Your task to perform on an android device: Open calendar and show me the second week of next month Image 0: 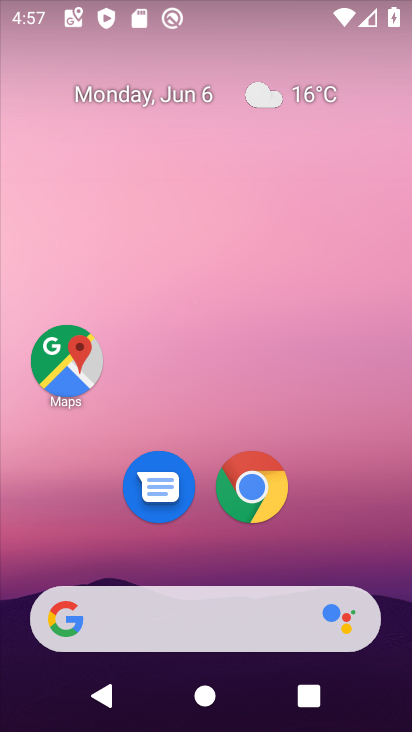
Step 0: drag from (327, 505) to (346, 44)
Your task to perform on an android device: Open calendar and show me the second week of next month Image 1: 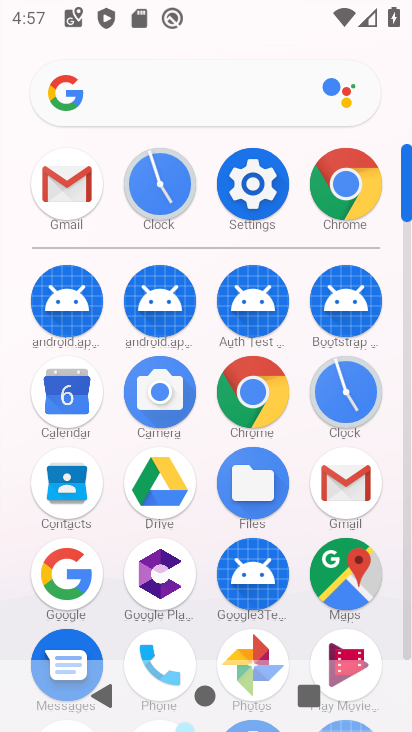
Step 1: click (58, 390)
Your task to perform on an android device: Open calendar and show me the second week of next month Image 2: 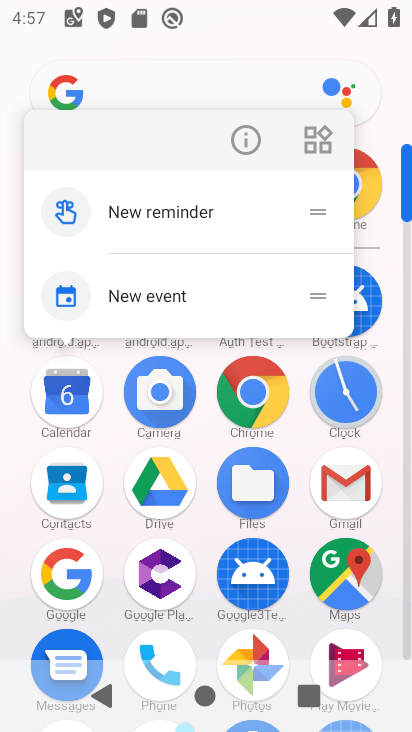
Step 2: click (58, 392)
Your task to perform on an android device: Open calendar and show me the second week of next month Image 3: 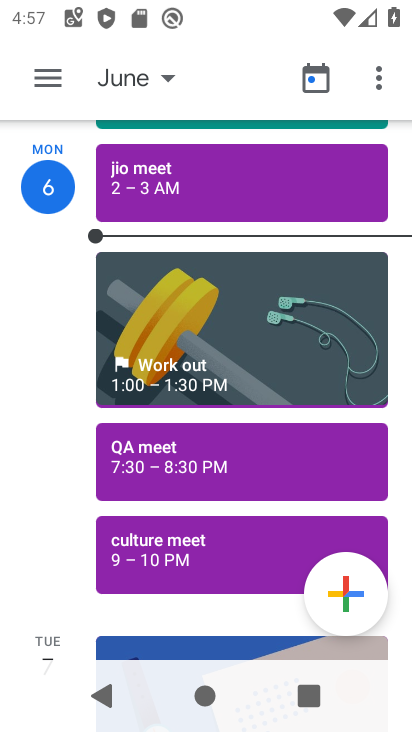
Step 3: click (55, 77)
Your task to perform on an android device: Open calendar and show me the second week of next month Image 4: 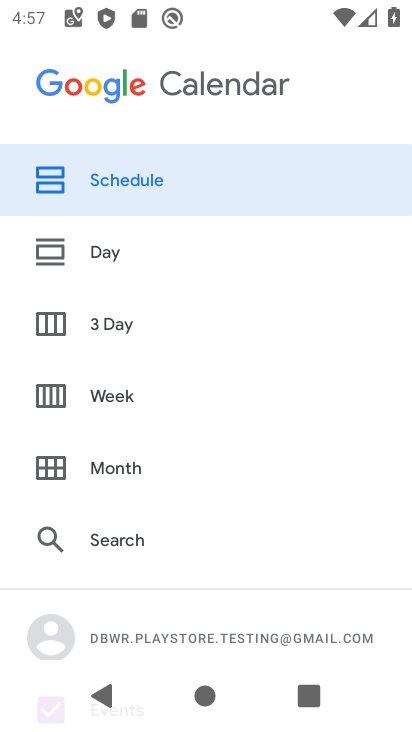
Step 4: click (45, 467)
Your task to perform on an android device: Open calendar and show me the second week of next month Image 5: 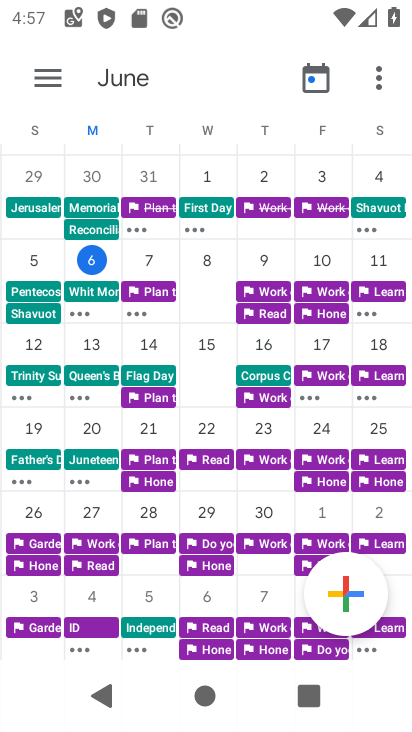
Step 5: drag from (373, 423) to (28, 477)
Your task to perform on an android device: Open calendar and show me the second week of next month Image 6: 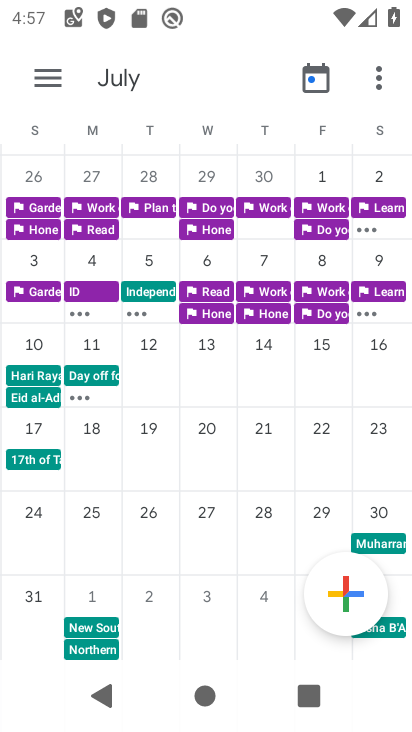
Step 6: click (24, 345)
Your task to perform on an android device: Open calendar and show me the second week of next month Image 7: 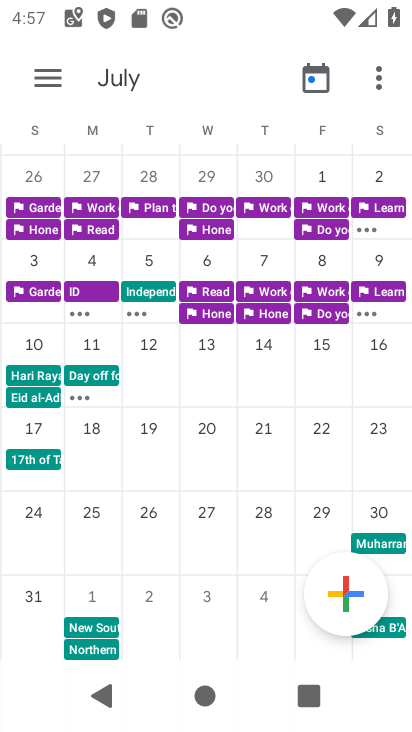
Step 7: click (32, 340)
Your task to perform on an android device: Open calendar and show me the second week of next month Image 8: 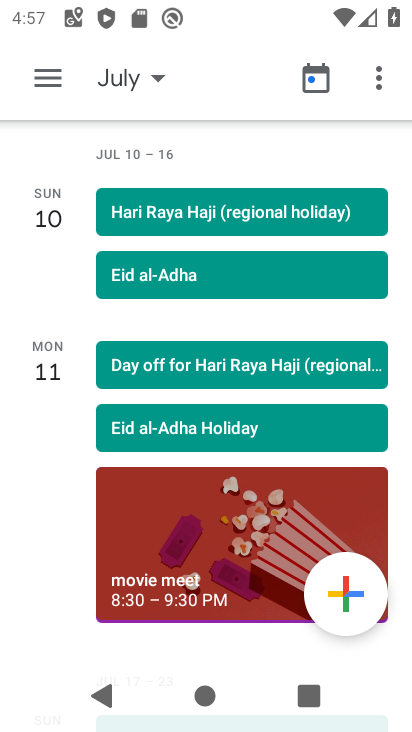
Step 8: click (53, 78)
Your task to perform on an android device: Open calendar and show me the second week of next month Image 9: 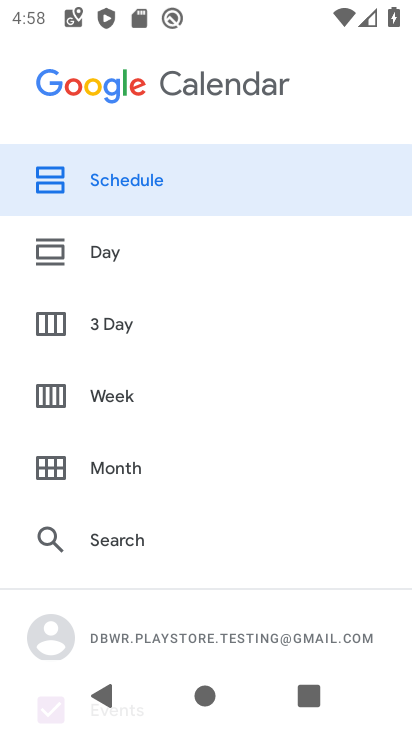
Step 9: click (48, 386)
Your task to perform on an android device: Open calendar and show me the second week of next month Image 10: 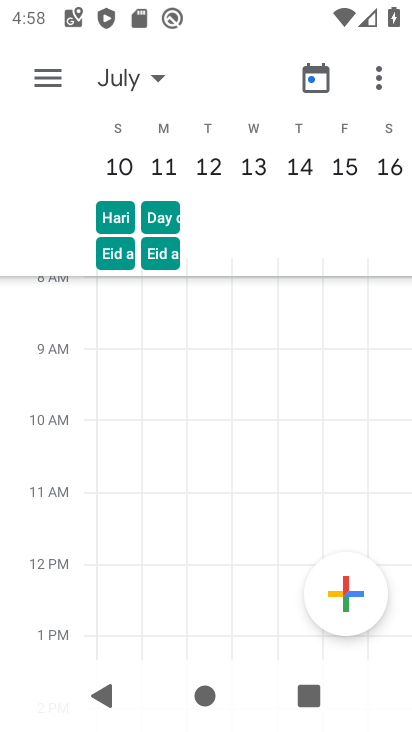
Step 10: task complete